Your task to perform on an android device: Open accessibility settings Image 0: 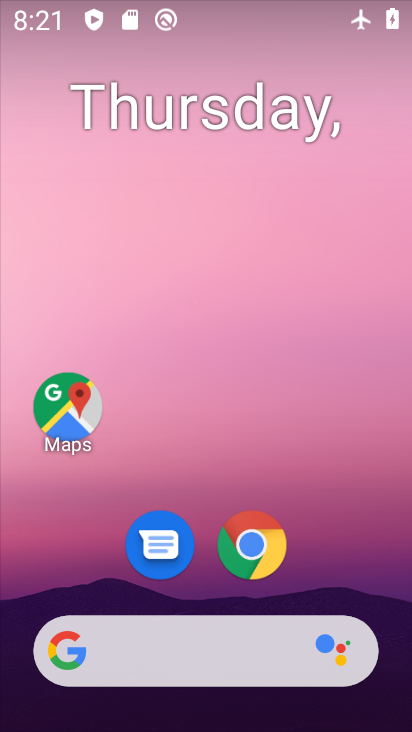
Step 0: drag from (316, 561) to (398, 164)
Your task to perform on an android device: Open accessibility settings Image 1: 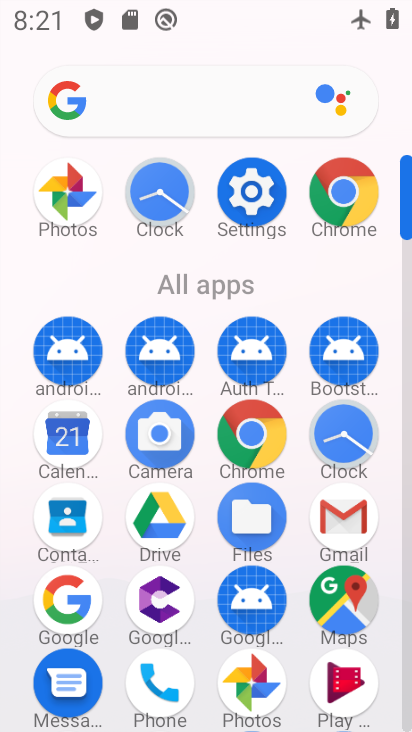
Step 1: click (255, 188)
Your task to perform on an android device: Open accessibility settings Image 2: 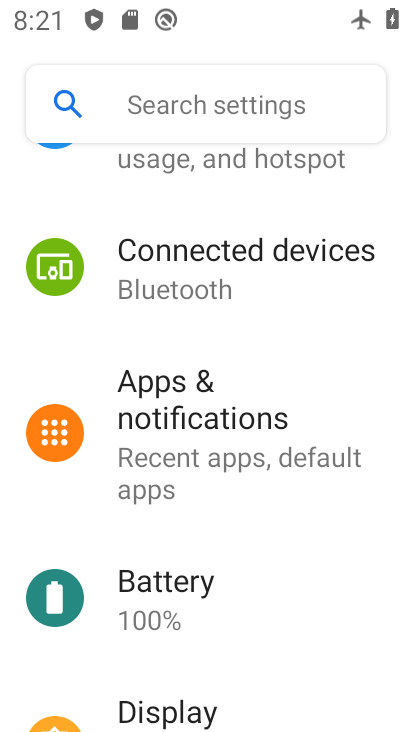
Step 2: drag from (228, 606) to (300, 193)
Your task to perform on an android device: Open accessibility settings Image 3: 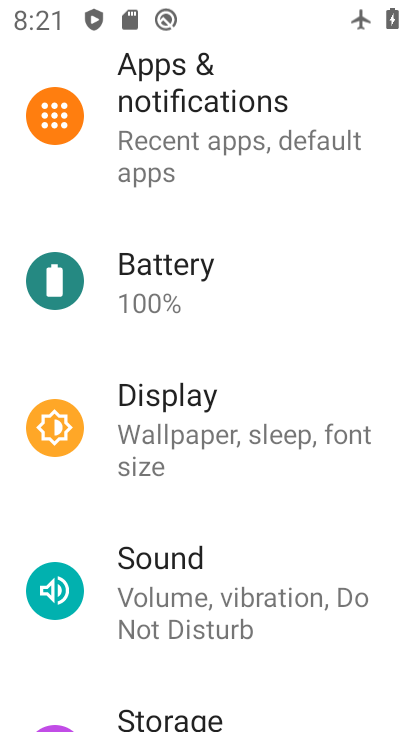
Step 3: drag from (230, 586) to (349, 161)
Your task to perform on an android device: Open accessibility settings Image 4: 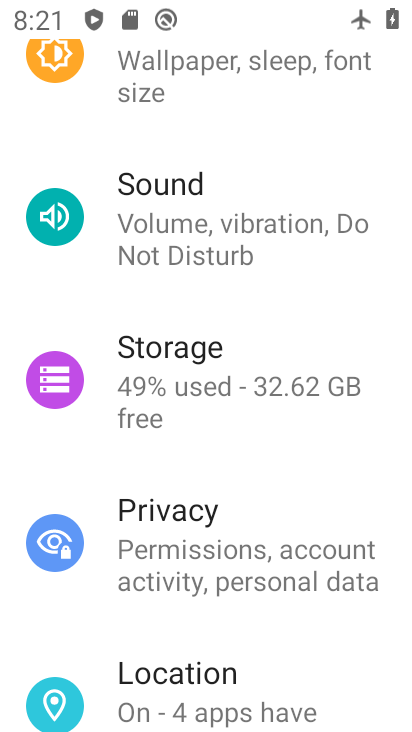
Step 4: drag from (173, 649) to (272, 193)
Your task to perform on an android device: Open accessibility settings Image 5: 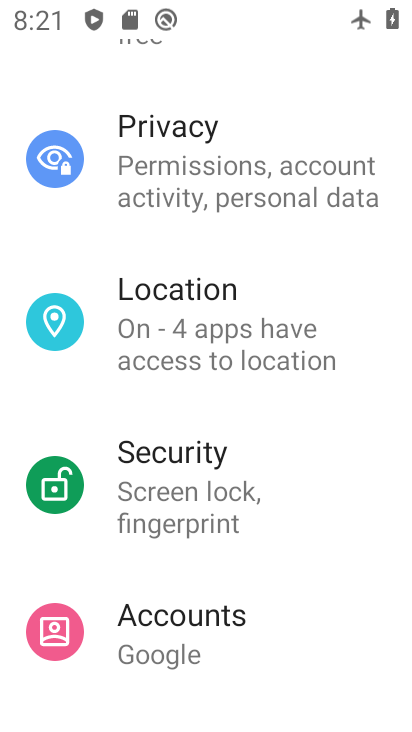
Step 5: drag from (202, 569) to (312, 63)
Your task to perform on an android device: Open accessibility settings Image 6: 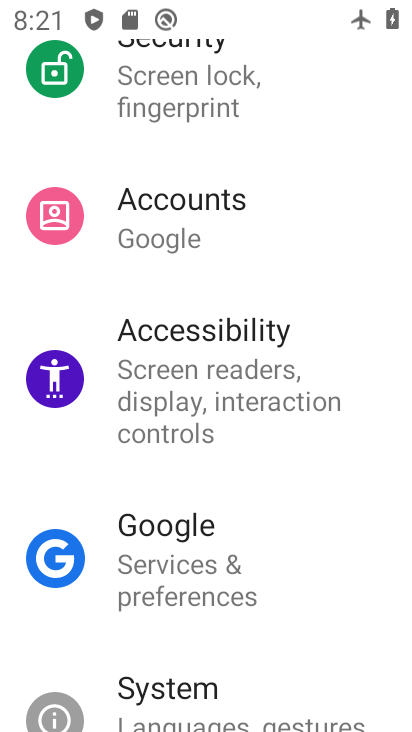
Step 6: click (218, 371)
Your task to perform on an android device: Open accessibility settings Image 7: 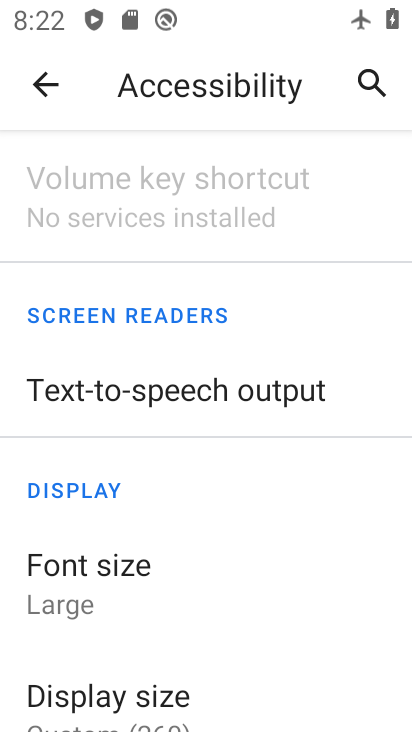
Step 7: task complete